Your task to perform on an android device: Open network settings Image 0: 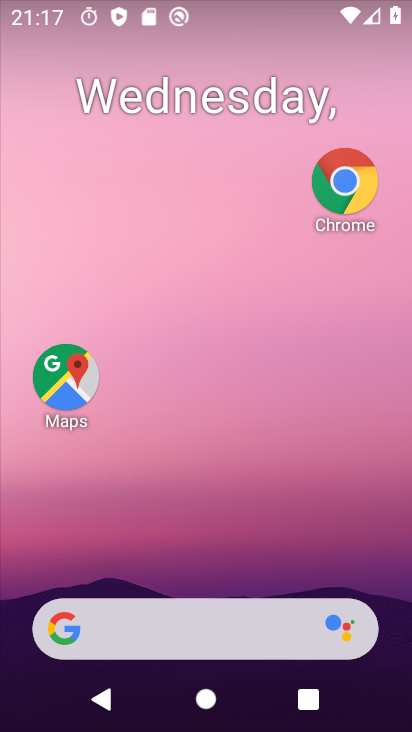
Step 0: drag from (242, 638) to (318, 200)
Your task to perform on an android device: Open network settings Image 1: 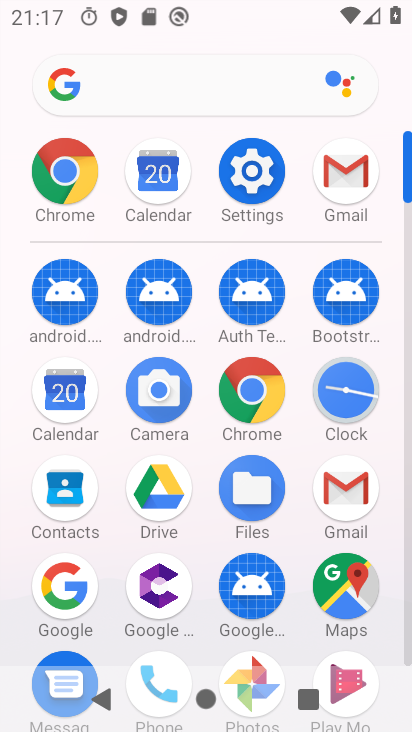
Step 1: click (245, 187)
Your task to perform on an android device: Open network settings Image 2: 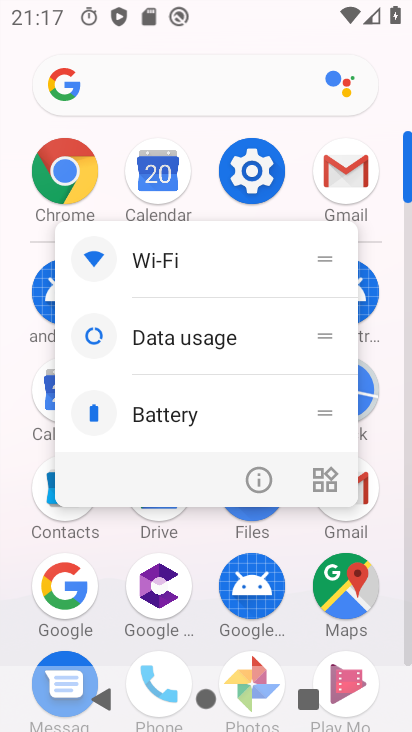
Step 2: click (245, 187)
Your task to perform on an android device: Open network settings Image 3: 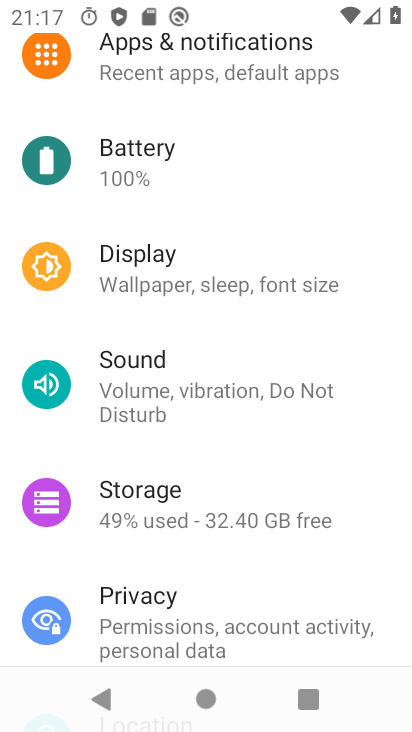
Step 3: drag from (181, 189) to (147, 719)
Your task to perform on an android device: Open network settings Image 4: 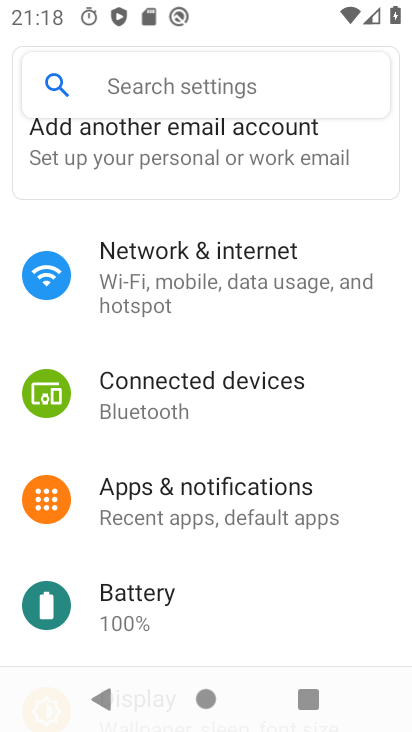
Step 4: click (203, 286)
Your task to perform on an android device: Open network settings Image 5: 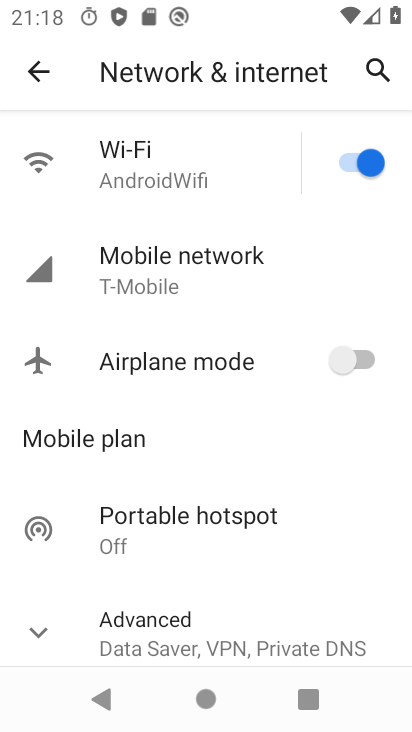
Step 5: task complete